Your task to perform on an android device: Open internet settings Image 0: 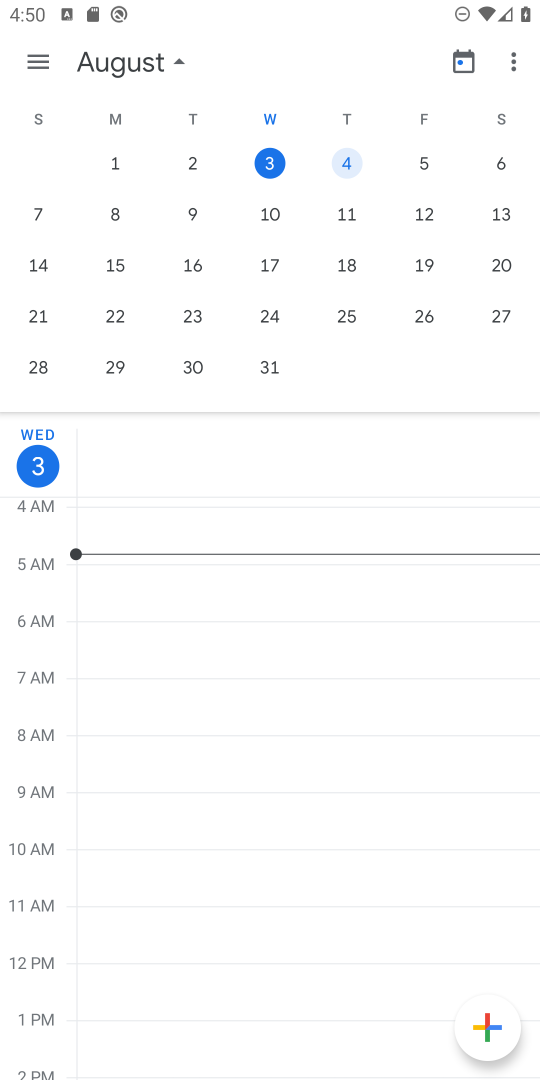
Step 0: press home button
Your task to perform on an android device: Open internet settings Image 1: 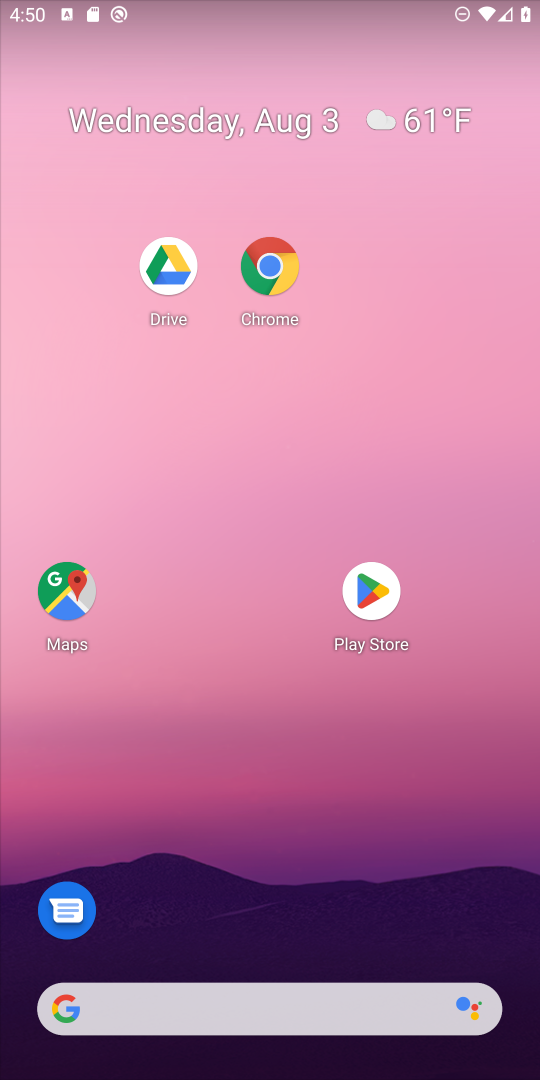
Step 1: drag from (274, 1014) to (496, 136)
Your task to perform on an android device: Open internet settings Image 2: 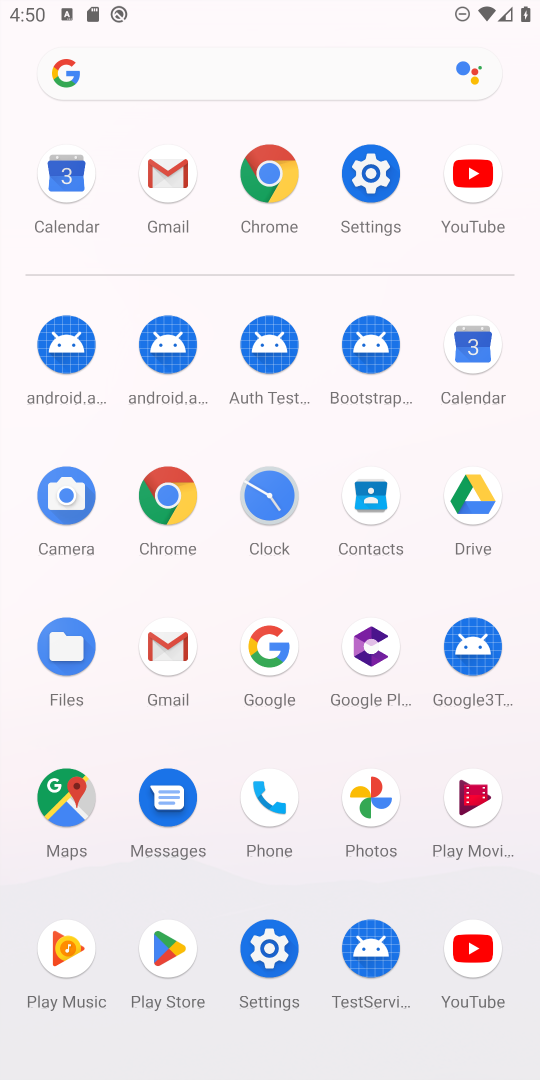
Step 2: click (372, 170)
Your task to perform on an android device: Open internet settings Image 3: 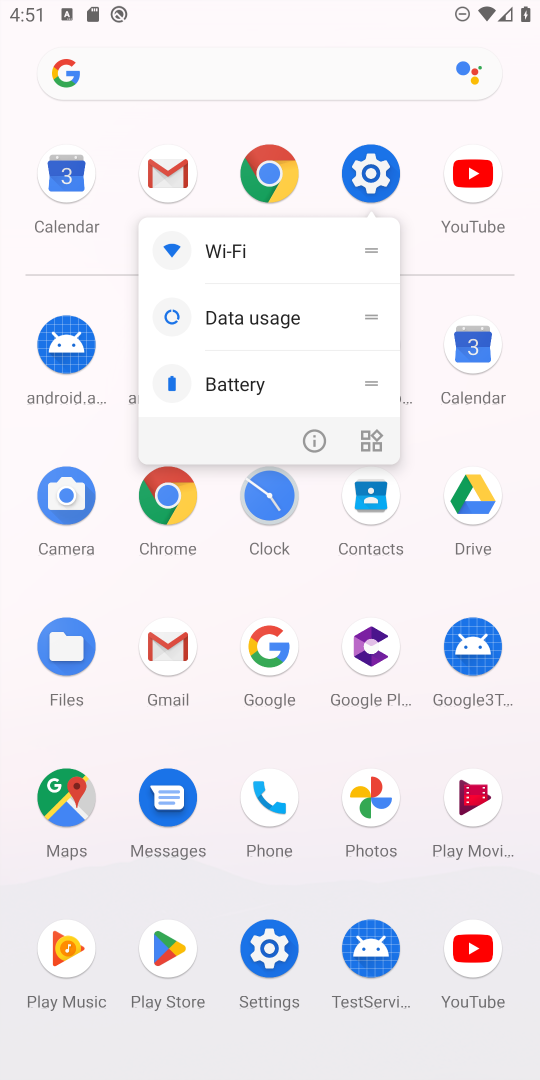
Step 3: click (363, 182)
Your task to perform on an android device: Open internet settings Image 4: 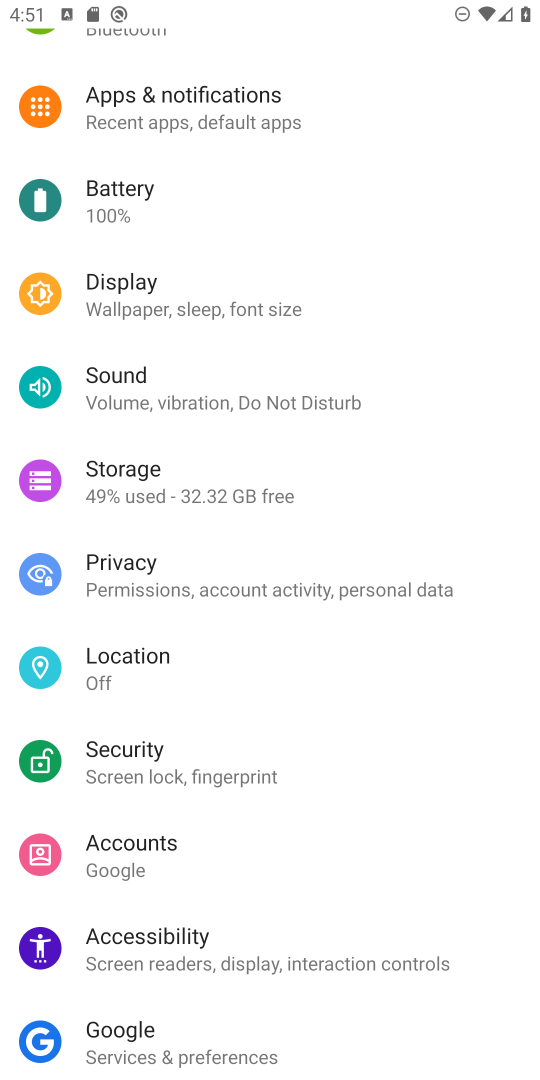
Step 4: drag from (219, 138) to (277, 1067)
Your task to perform on an android device: Open internet settings Image 5: 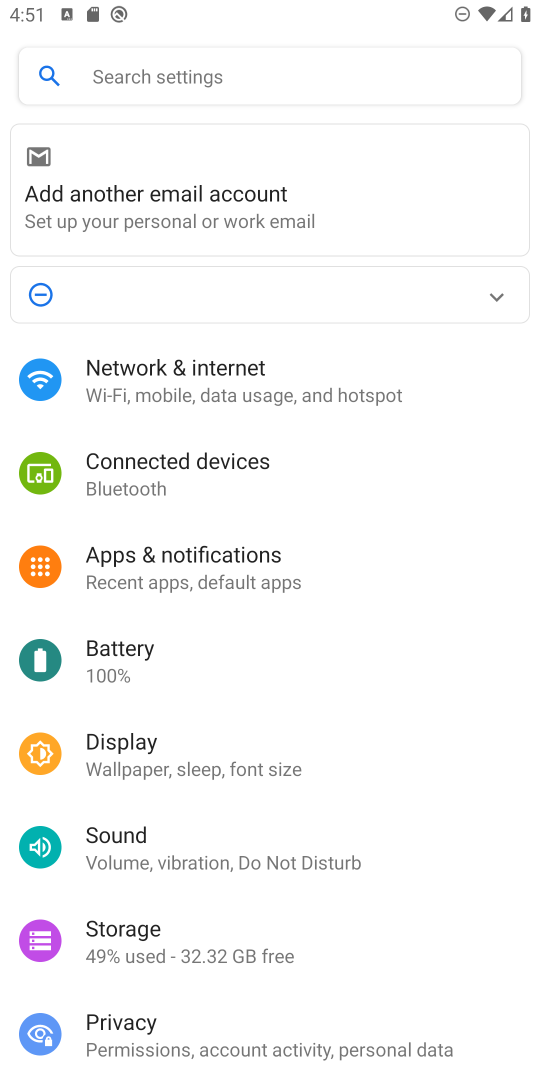
Step 5: click (261, 374)
Your task to perform on an android device: Open internet settings Image 6: 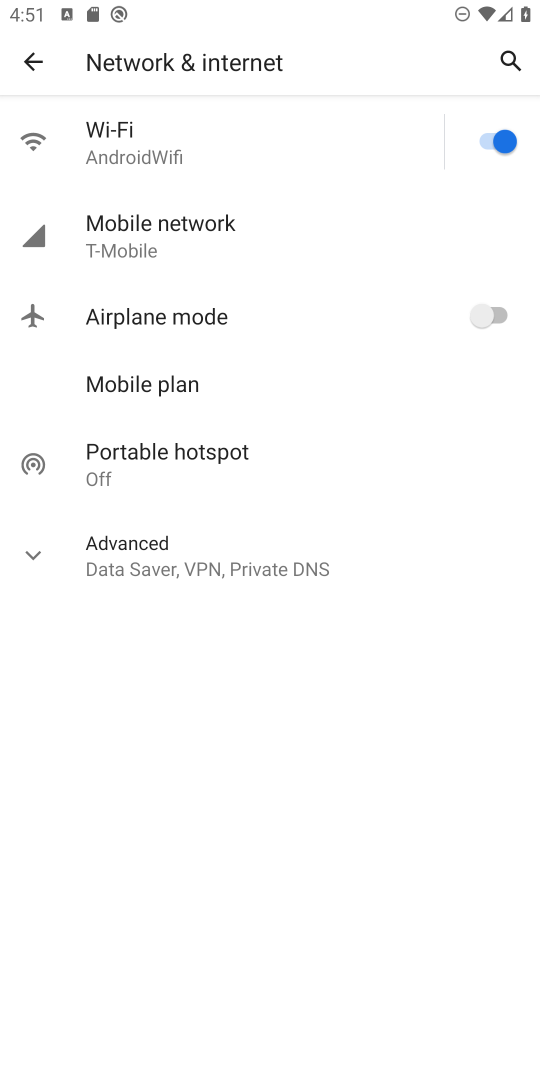
Step 6: task complete